Your task to perform on an android device: Open wifi settings Image 0: 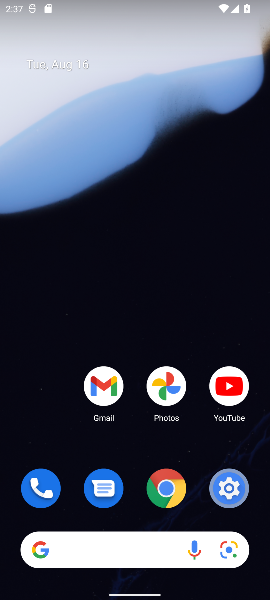
Step 0: click (246, 482)
Your task to perform on an android device: Open wifi settings Image 1: 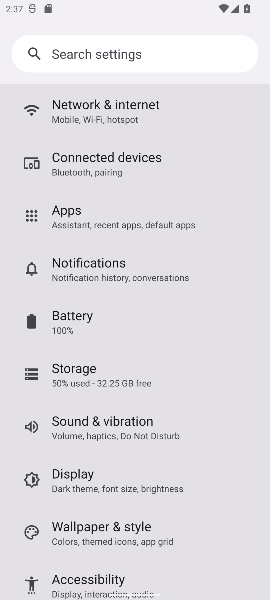
Step 1: click (237, 482)
Your task to perform on an android device: Open wifi settings Image 2: 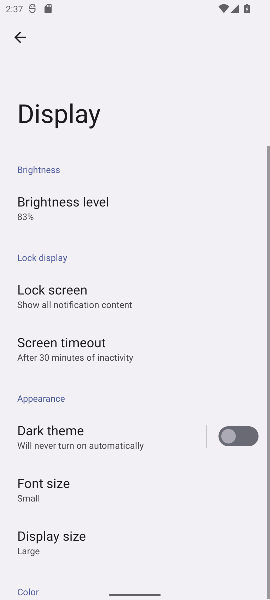
Step 2: task complete